Your task to perform on an android device: See recent photos Image 0: 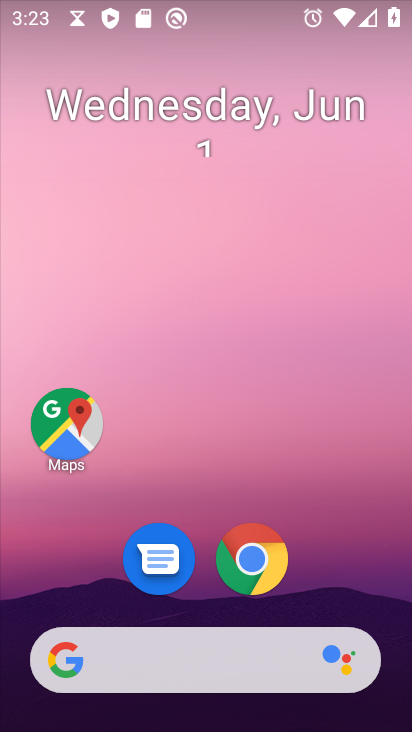
Step 0: drag from (322, 591) to (290, 36)
Your task to perform on an android device: See recent photos Image 1: 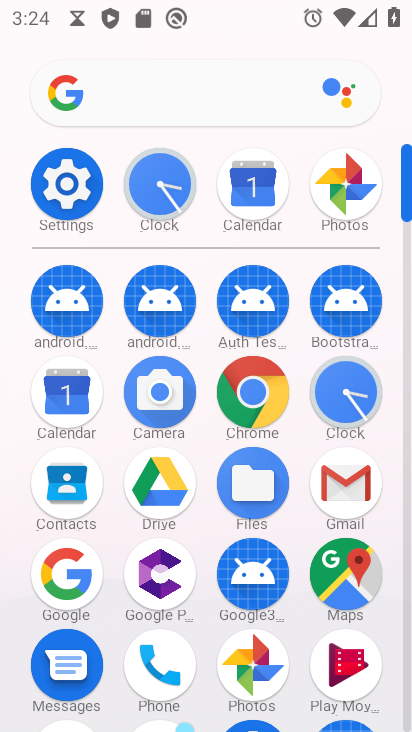
Step 1: click (344, 185)
Your task to perform on an android device: See recent photos Image 2: 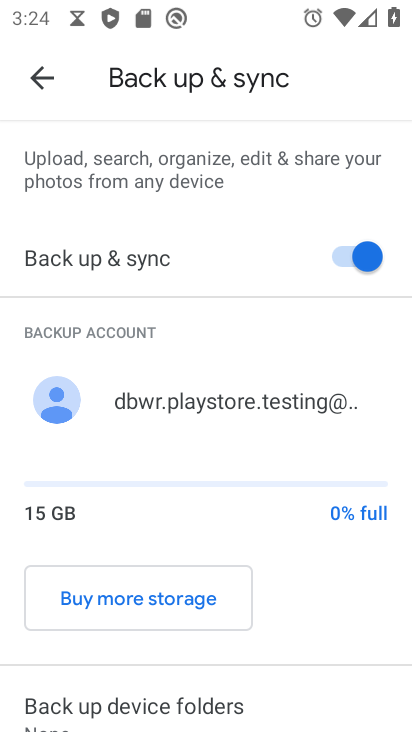
Step 2: click (43, 83)
Your task to perform on an android device: See recent photos Image 3: 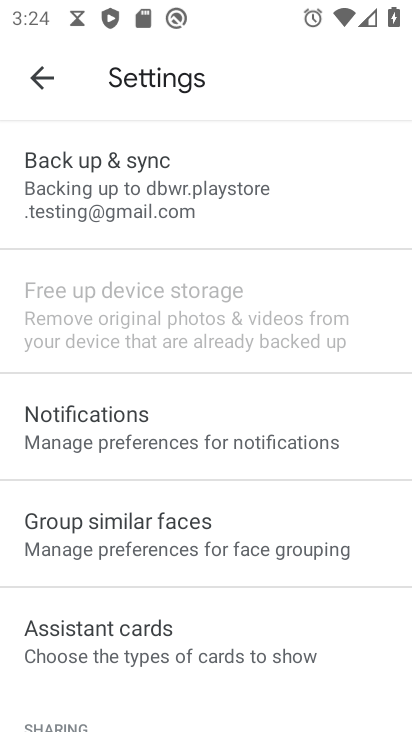
Step 3: click (47, 87)
Your task to perform on an android device: See recent photos Image 4: 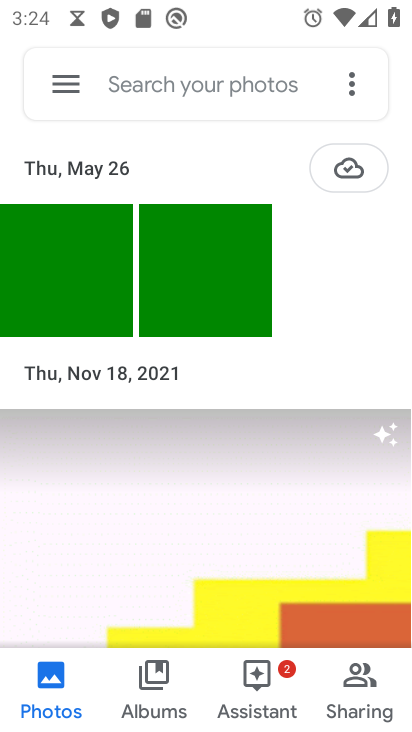
Step 4: task complete